Your task to perform on an android device: create a new album in the google photos Image 0: 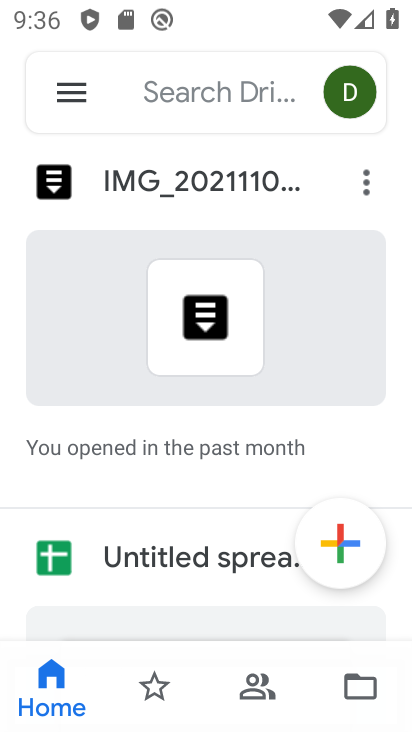
Step 0: press home button
Your task to perform on an android device: create a new album in the google photos Image 1: 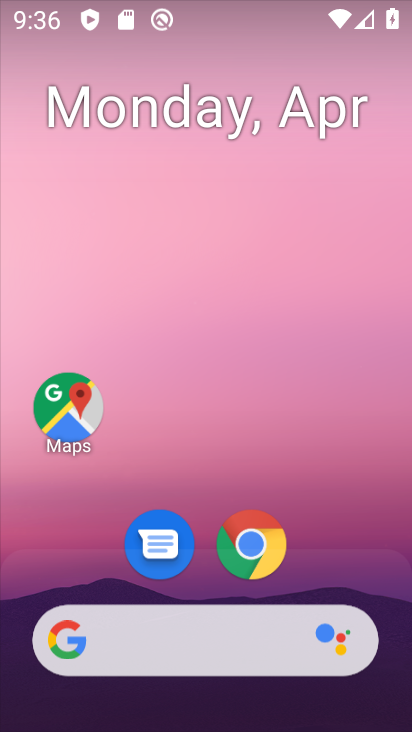
Step 1: drag from (218, 588) to (238, 280)
Your task to perform on an android device: create a new album in the google photos Image 2: 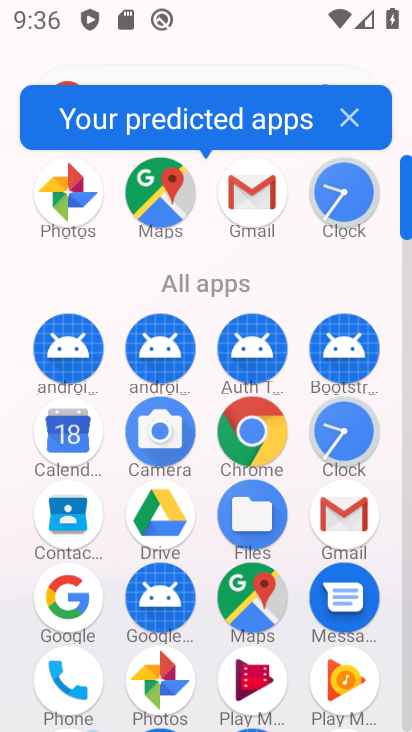
Step 2: click (160, 660)
Your task to perform on an android device: create a new album in the google photos Image 3: 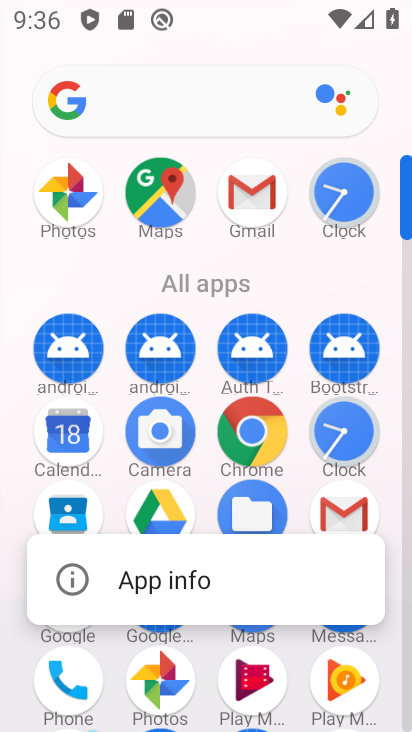
Step 3: click (168, 683)
Your task to perform on an android device: create a new album in the google photos Image 4: 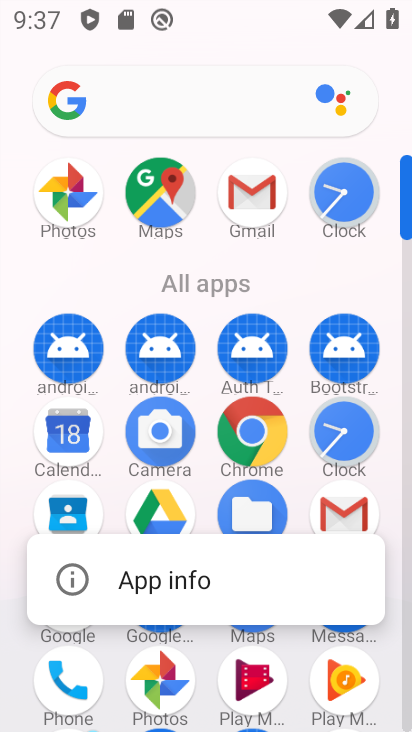
Step 4: click (168, 682)
Your task to perform on an android device: create a new album in the google photos Image 5: 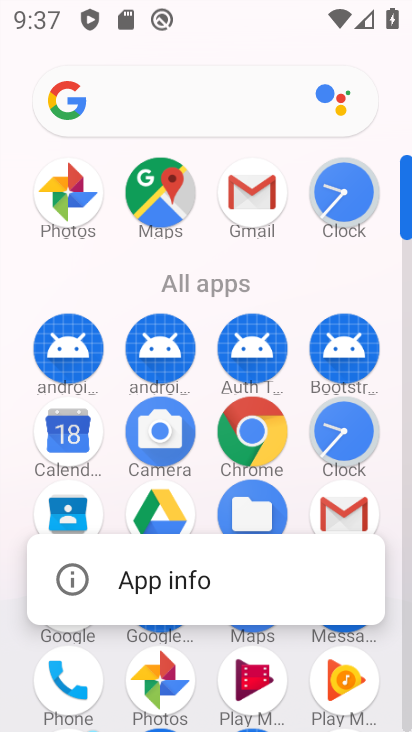
Step 5: click (168, 682)
Your task to perform on an android device: create a new album in the google photos Image 6: 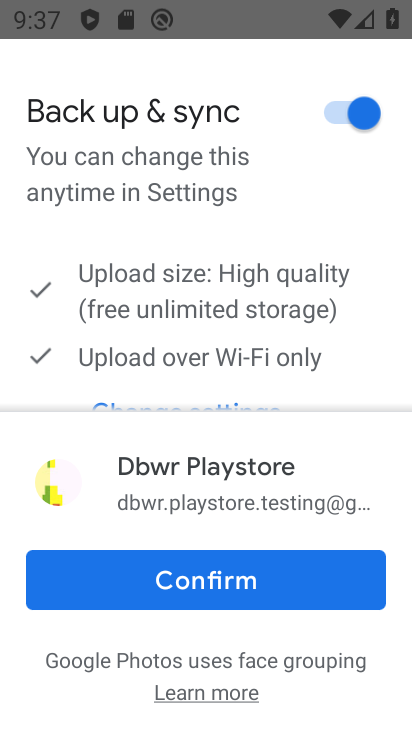
Step 6: click (286, 571)
Your task to perform on an android device: create a new album in the google photos Image 7: 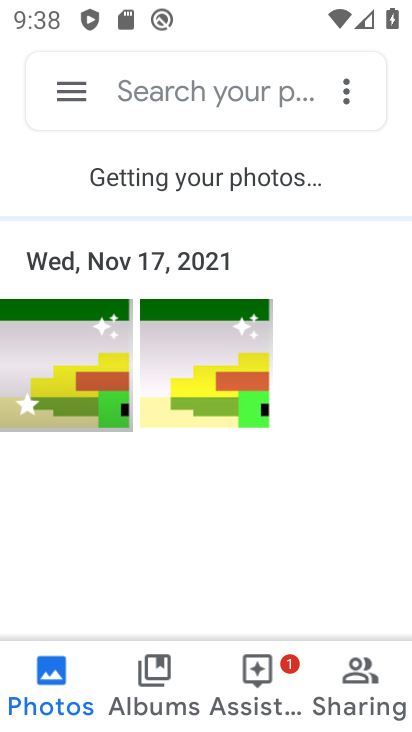
Step 7: click (86, 355)
Your task to perform on an android device: create a new album in the google photos Image 8: 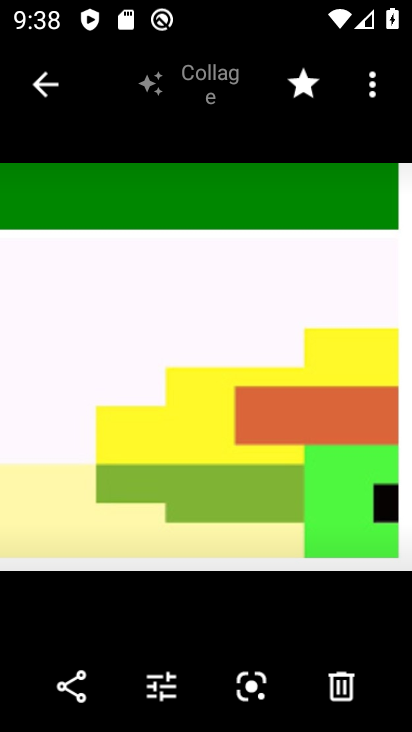
Step 8: click (44, 87)
Your task to perform on an android device: create a new album in the google photos Image 9: 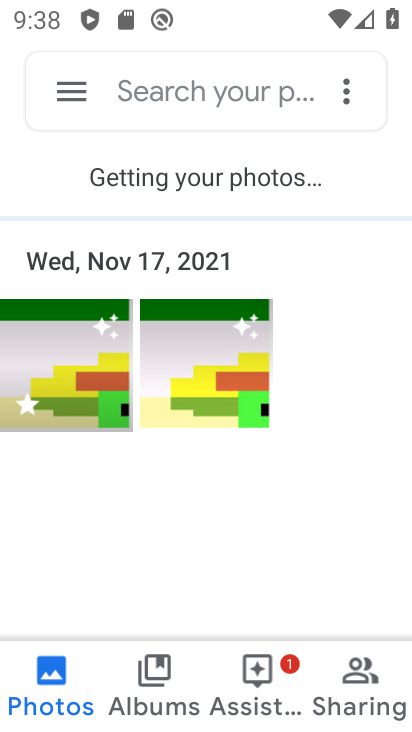
Step 9: click (77, 357)
Your task to perform on an android device: create a new album in the google photos Image 10: 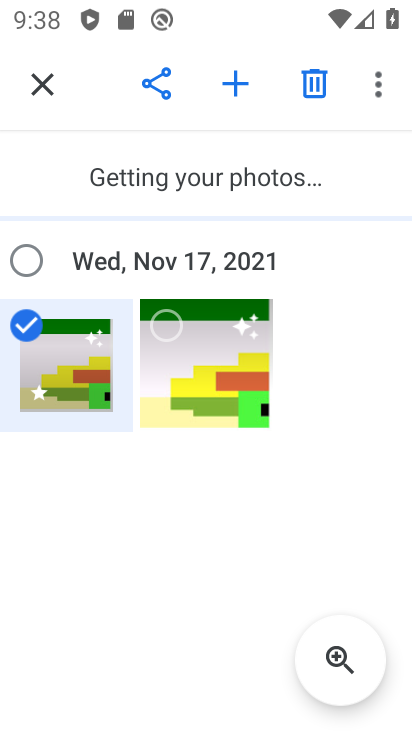
Step 10: click (230, 69)
Your task to perform on an android device: create a new album in the google photos Image 11: 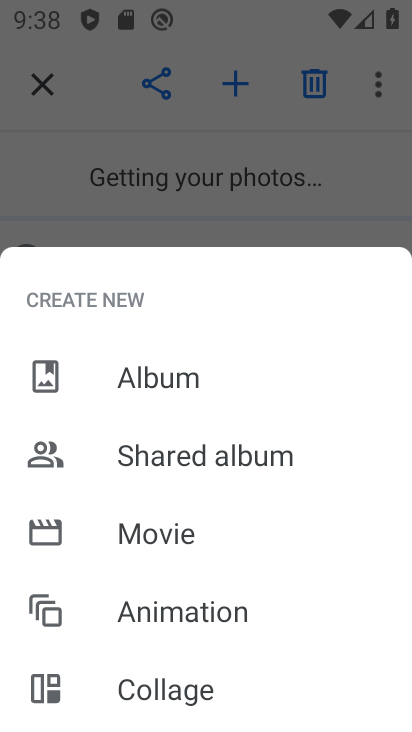
Step 11: click (167, 368)
Your task to perform on an android device: create a new album in the google photos Image 12: 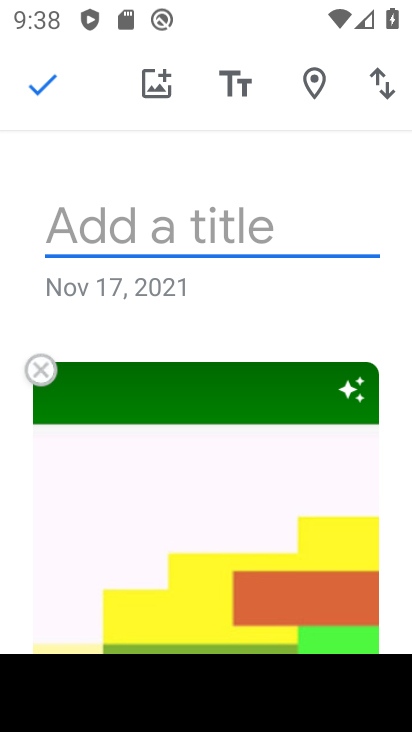
Step 12: click (241, 224)
Your task to perform on an android device: create a new album in the google photos Image 13: 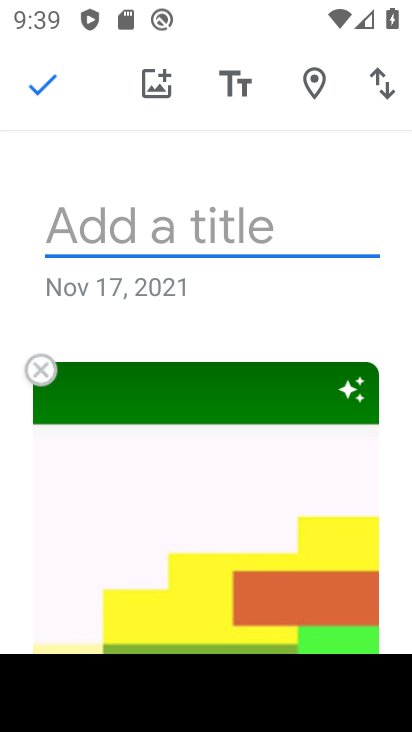
Step 13: type "lklklklklk"
Your task to perform on an android device: create a new album in the google photos Image 14: 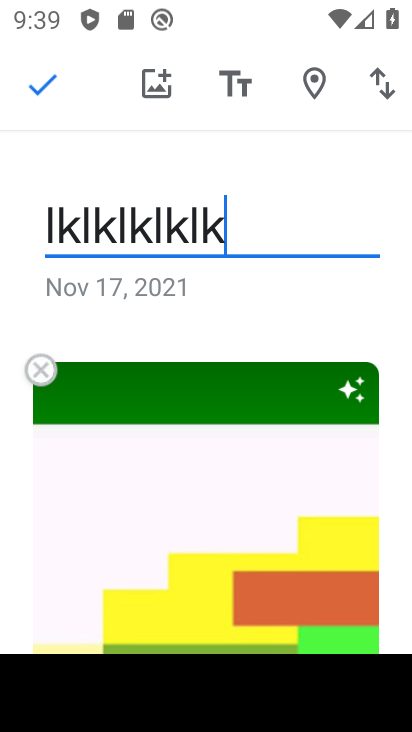
Step 14: click (37, 70)
Your task to perform on an android device: create a new album in the google photos Image 15: 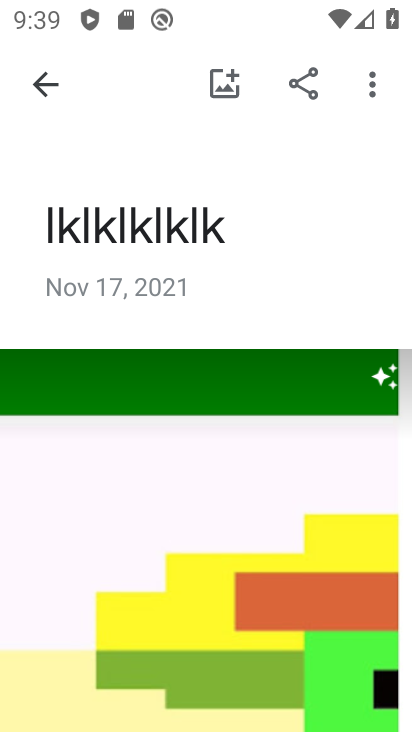
Step 15: task complete